Your task to perform on an android device: Open sound settings Image 0: 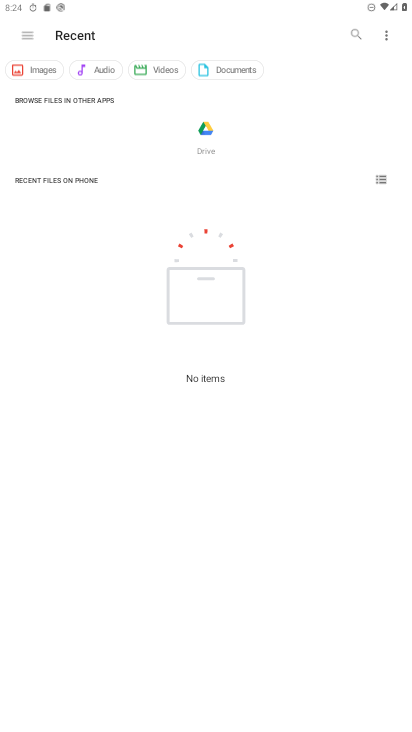
Step 0: press home button
Your task to perform on an android device: Open sound settings Image 1: 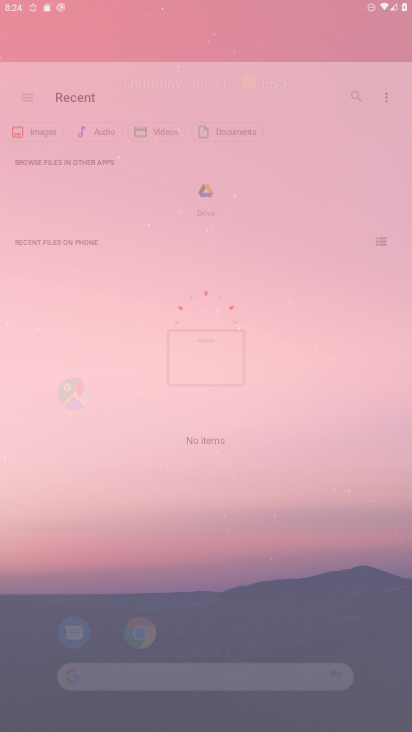
Step 1: drag from (210, 623) to (330, 85)
Your task to perform on an android device: Open sound settings Image 2: 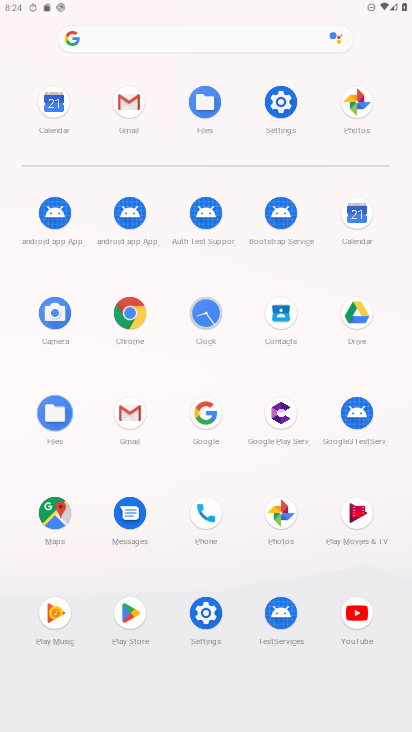
Step 2: click (285, 88)
Your task to perform on an android device: Open sound settings Image 3: 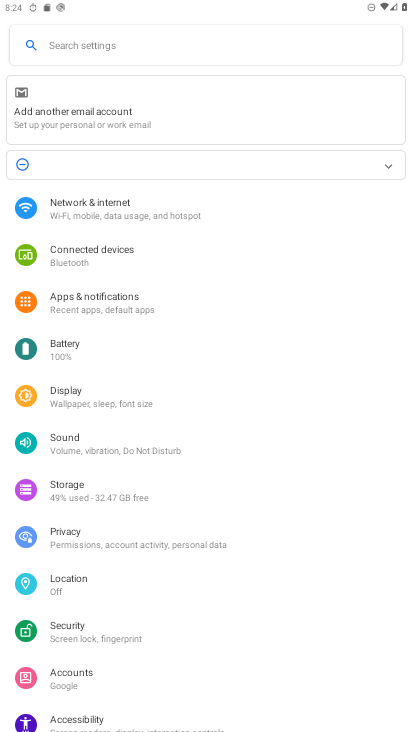
Step 3: click (110, 439)
Your task to perform on an android device: Open sound settings Image 4: 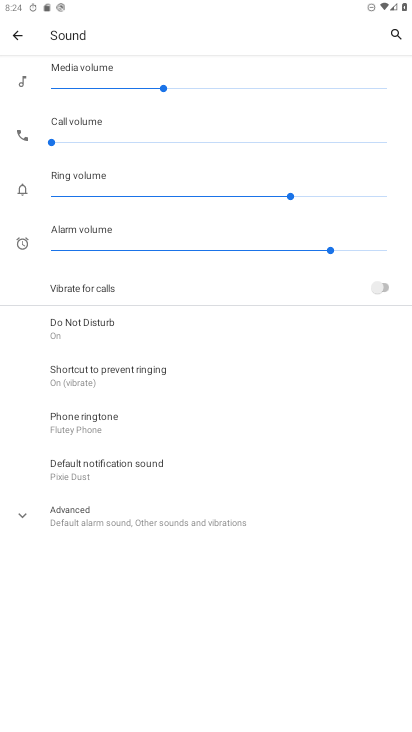
Step 4: task complete